Your task to perform on an android device: change the clock display to digital Image 0: 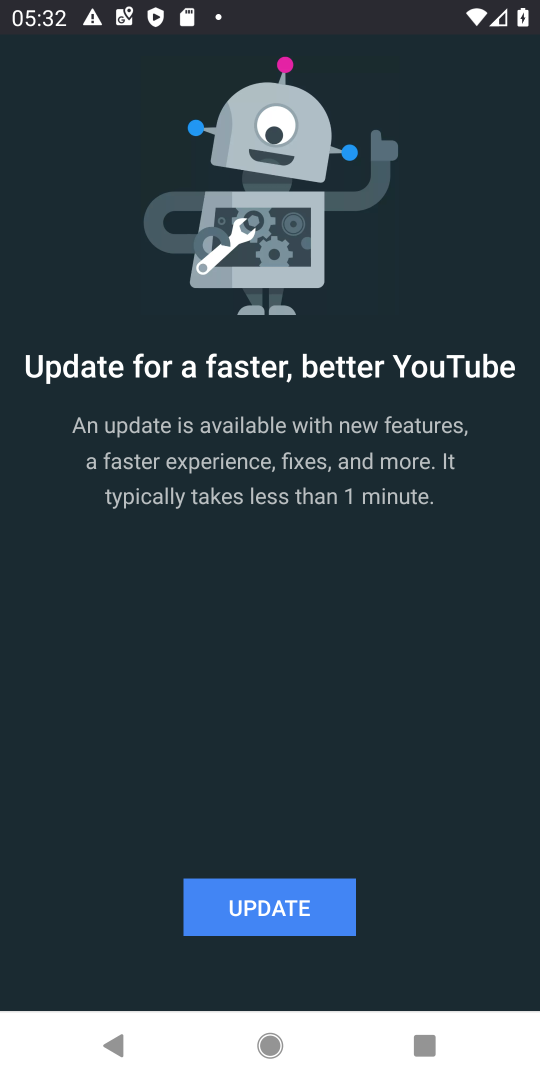
Step 0: press home button
Your task to perform on an android device: change the clock display to digital Image 1: 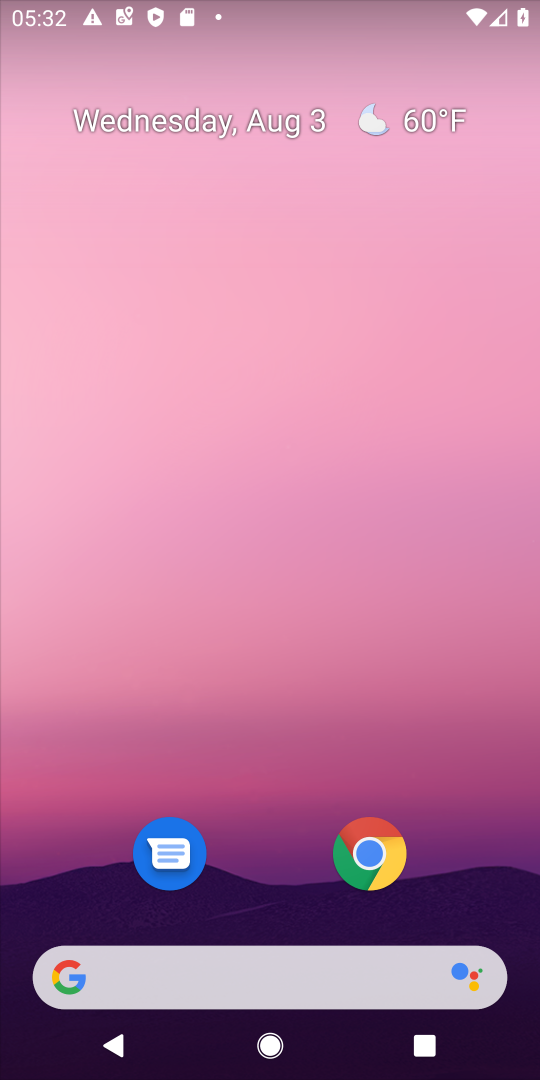
Step 1: drag from (276, 922) to (259, 326)
Your task to perform on an android device: change the clock display to digital Image 2: 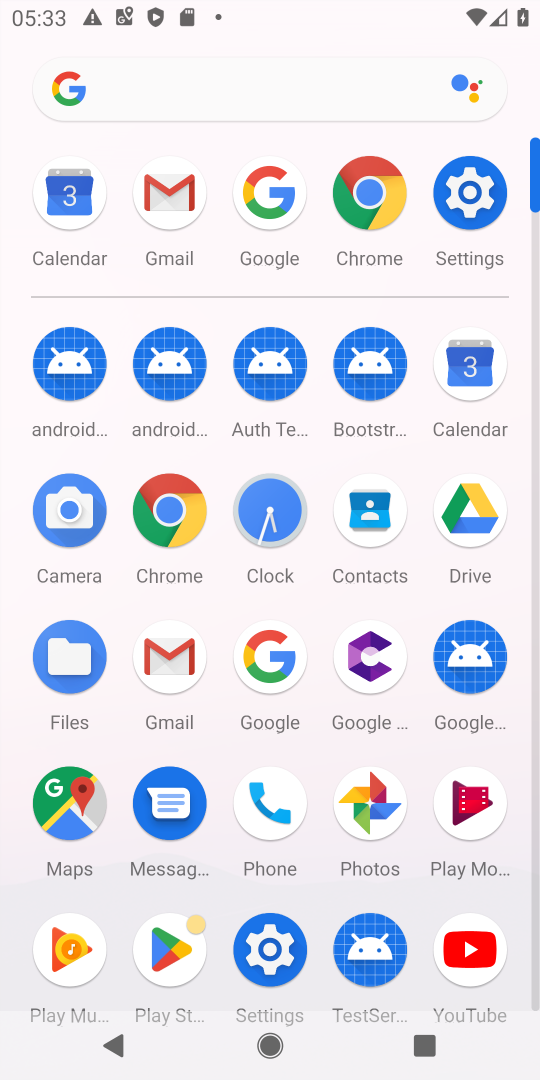
Step 2: click (267, 519)
Your task to perform on an android device: change the clock display to digital Image 3: 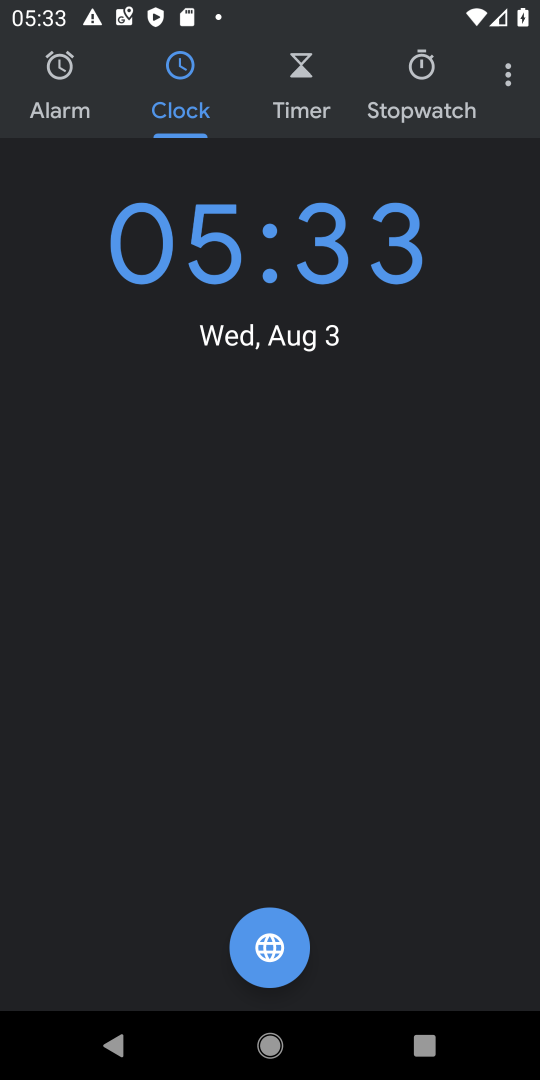
Step 3: click (514, 77)
Your task to perform on an android device: change the clock display to digital Image 4: 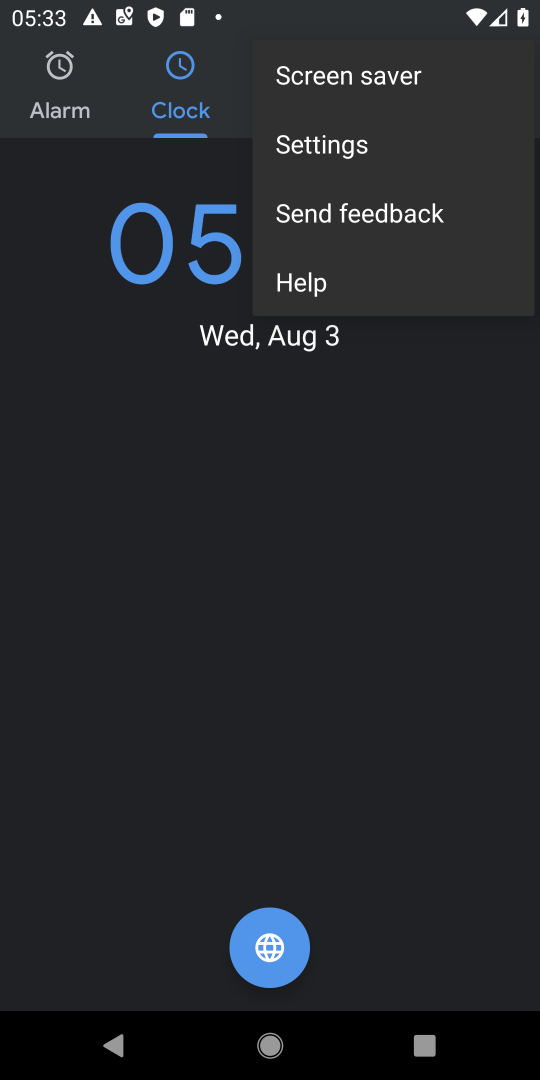
Step 4: click (332, 141)
Your task to perform on an android device: change the clock display to digital Image 5: 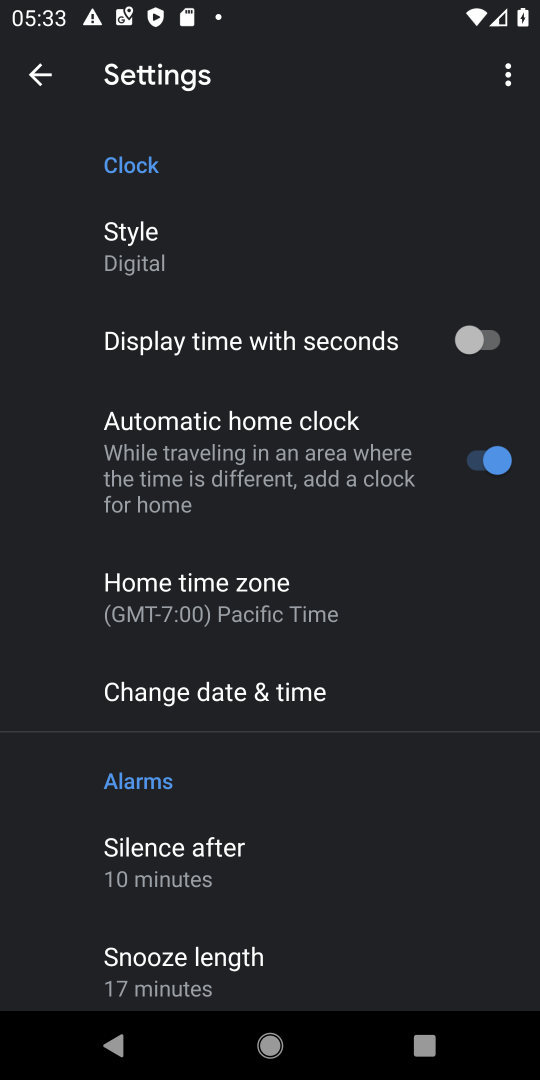
Step 5: task complete